Your task to perform on an android device: Open the Play Movies app and select the watchlist tab. Image 0: 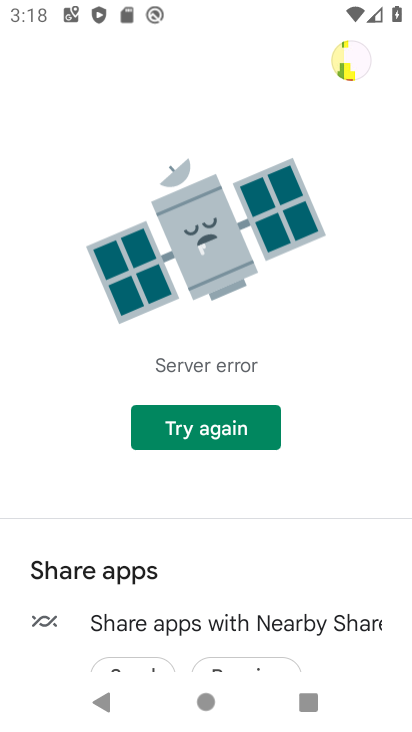
Step 0: press home button
Your task to perform on an android device: Open the Play Movies app and select the watchlist tab. Image 1: 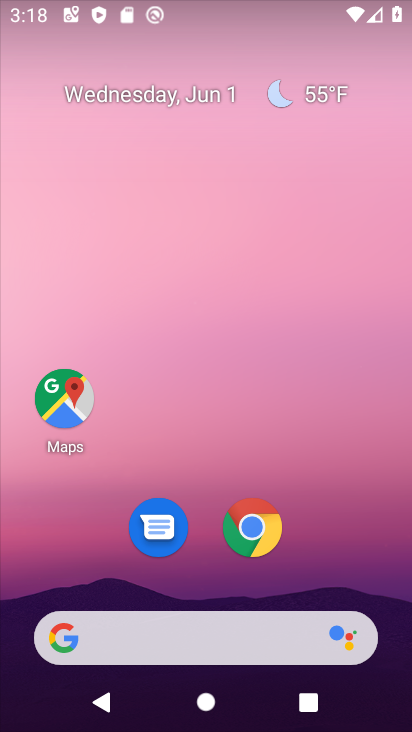
Step 1: drag from (305, 546) to (411, 673)
Your task to perform on an android device: Open the Play Movies app and select the watchlist tab. Image 2: 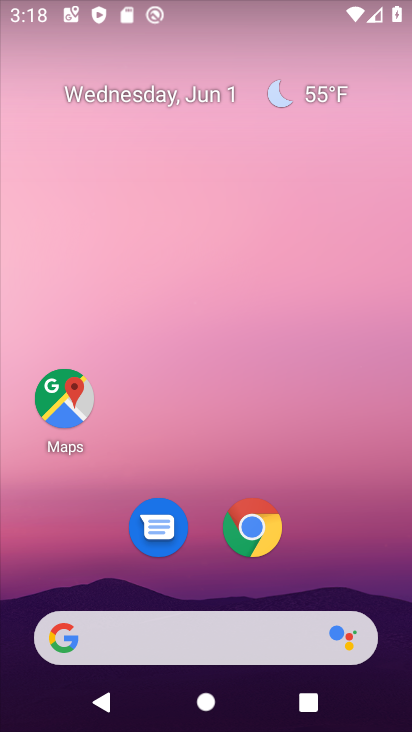
Step 2: click (409, 673)
Your task to perform on an android device: Open the Play Movies app and select the watchlist tab. Image 3: 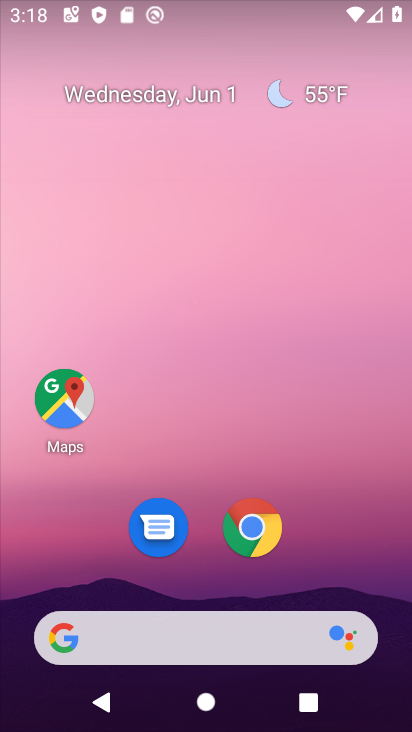
Step 3: click (409, 673)
Your task to perform on an android device: Open the Play Movies app and select the watchlist tab. Image 4: 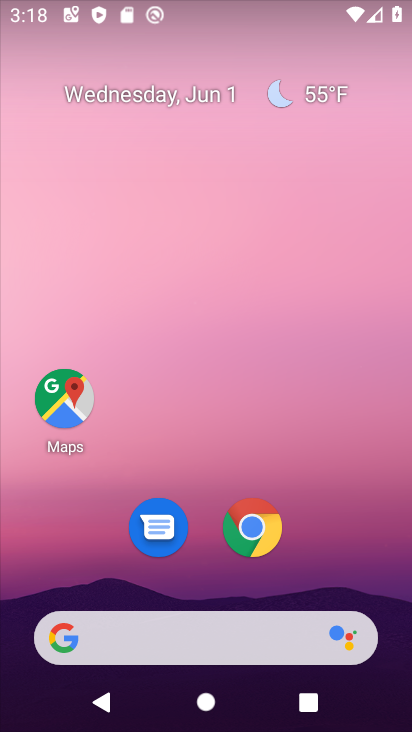
Step 4: drag from (409, 673) to (323, 186)
Your task to perform on an android device: Open the Play Movies app and select the watchlist tab. Image 5: 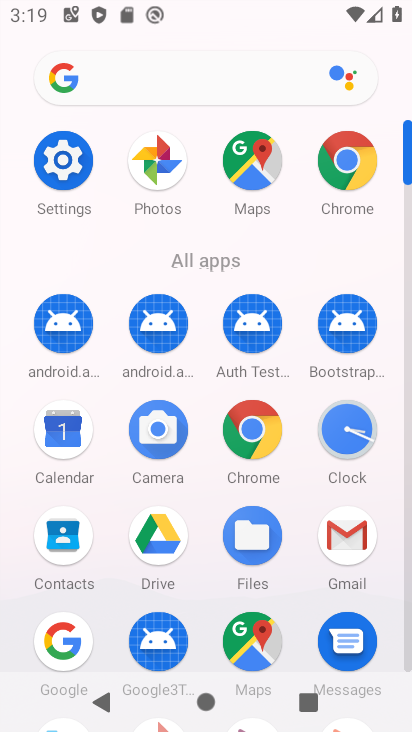
Step 5: click (408, 634)
Your task to perform on an android device: Open the Play Movies app and select the watchlist tab. Image 6: 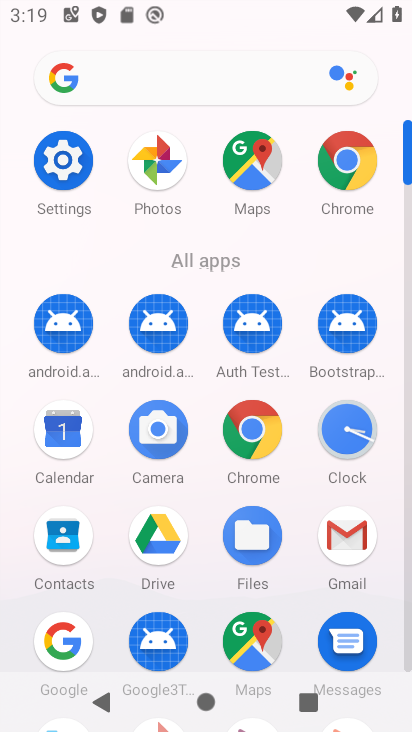
Step 6: click (408, 634)
Your task to perform on an android device: Open the Play Movies app and select the watchlist tab. Image 7: 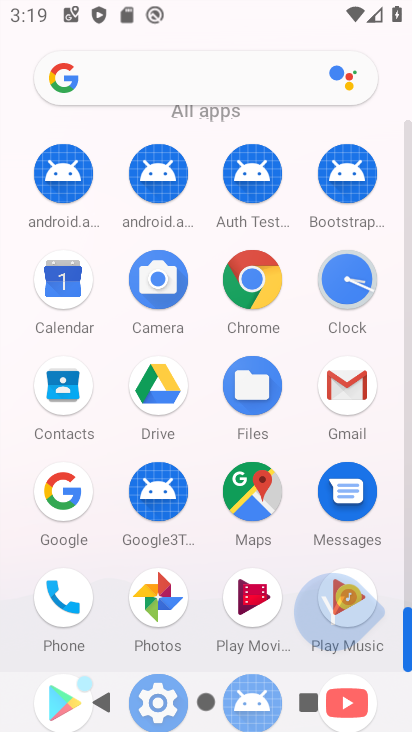
Step 7: click (408, 634)
Your task to perform on an android device: Open the Play Movies app and select the watchlist tab. Image 8: 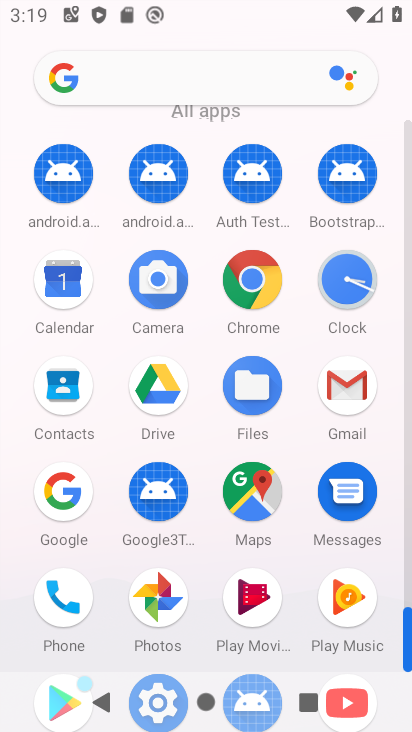
Step 8: click (268, 593)
Your task to perform on an android device: Open the Play Movies app and select the watchlist tab. Image 9: 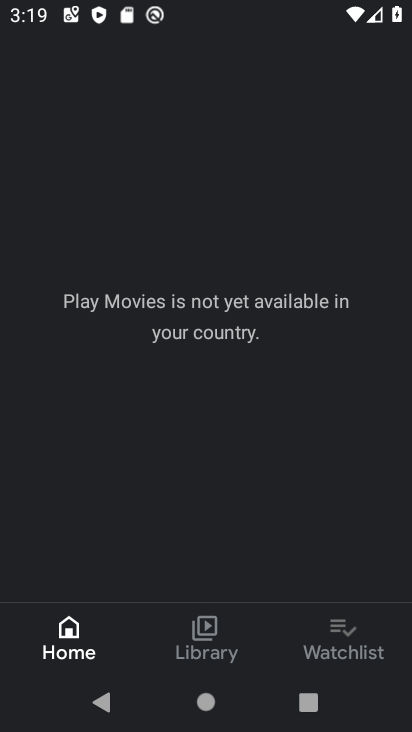
Step 9: click (342, 639)
Your task to perform on an android device: Open the Play Movies app and select the watchlist tab. Image 10: 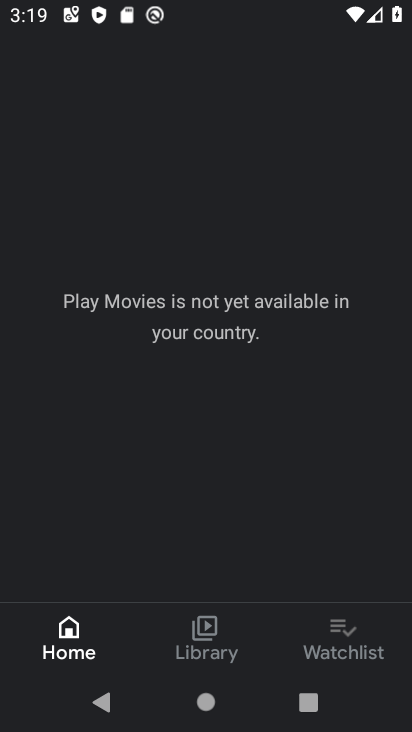
Step 10: click (342, 639)
Your task to perform on an android device: Open the Play Movies app and select the watchlist tab. Image 11: 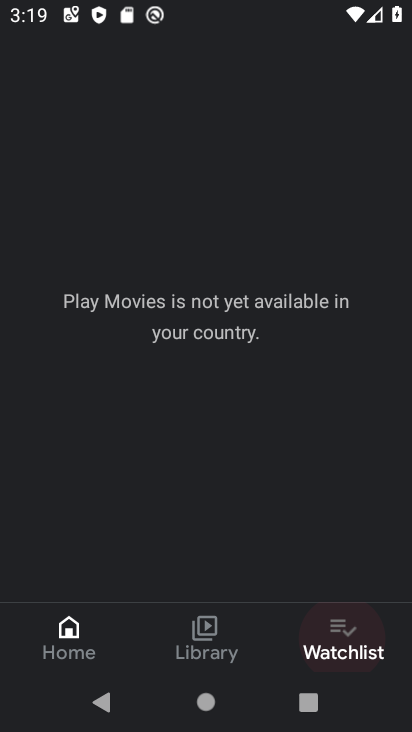
Step 11: click (342, 639)
Your task to perform on an android device: Open the Play Movies app and select the watchlist tab. Image 12: 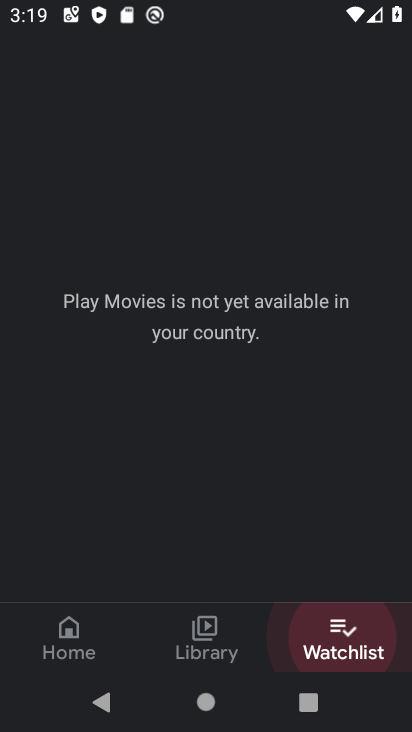
Step 12: click (342, 639)
Your task to perform on an android device: Open the Play Movies app and select the watchlist tab. Image 13: 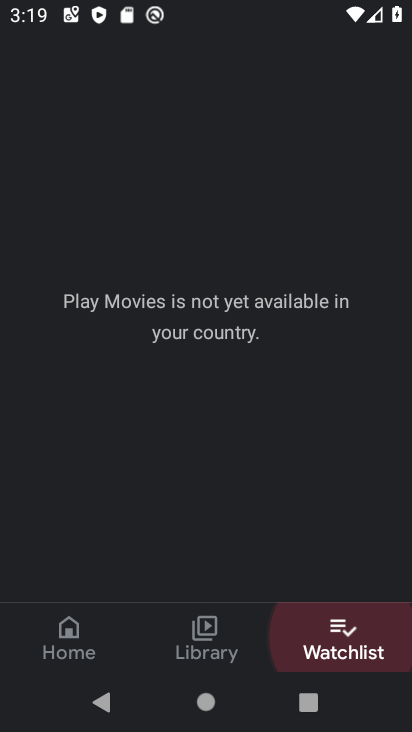
Step 13: click (342, 639)
Your task to perform on an android device: Open the Play Movies app and select the watchlist tab. Image 14: 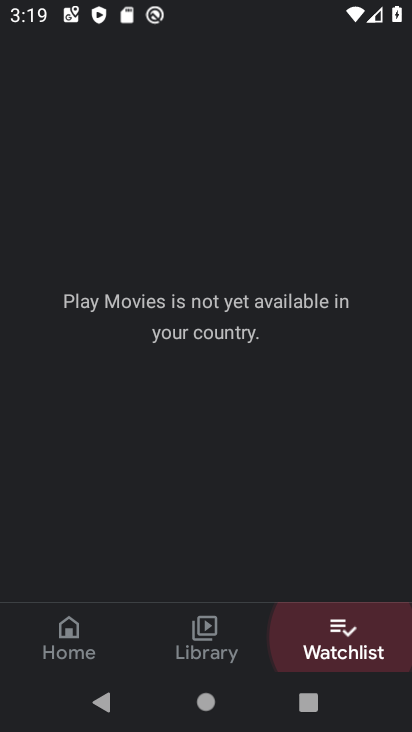
Step 14: click (342, 639)
Your task to perform on an android device: Open the Play Movies app and select the watchlist tab. Image 15: 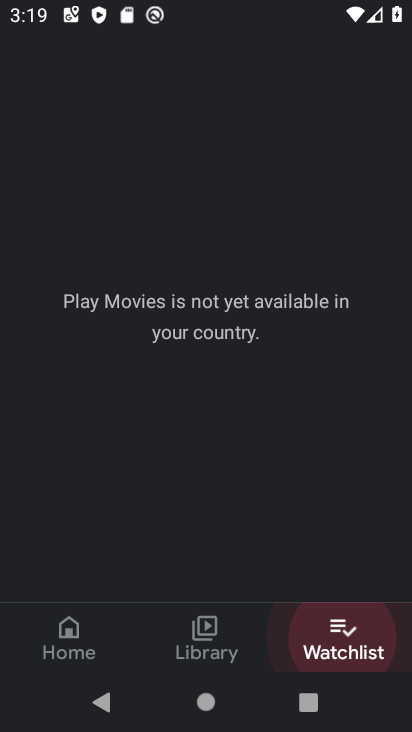
Step 15: click (342, 639)
Your task to perform on an android device: Open the Play Movies app and select the watchlist tab. Image 16: 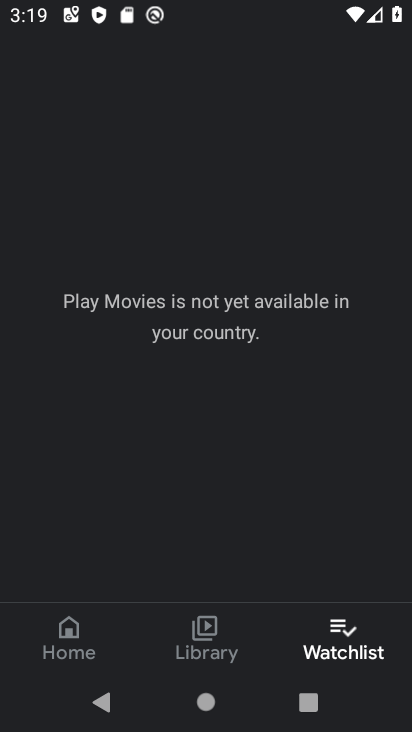
Step 16: task complete